Your task to perform on an android device: set default search engine in the chrome app Image 0: 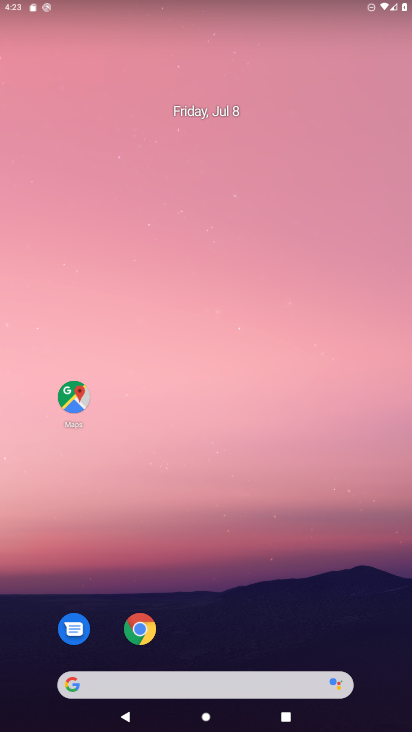
Step 0: click (156, 630)
Your task to perform on an android device: set default search engine in the chrome app Image 1: 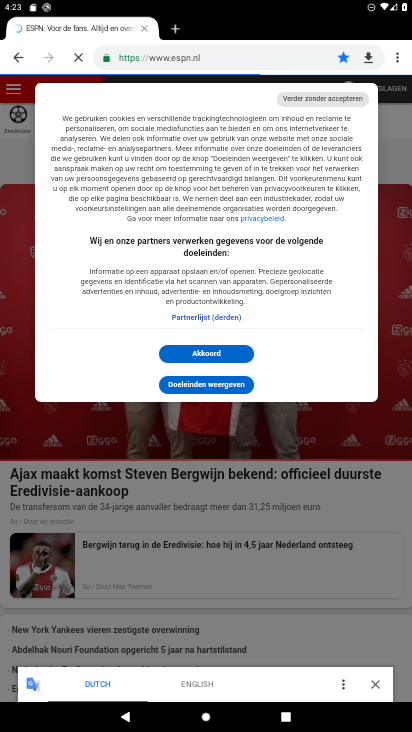
Step 1: click (394, 67)
Your task to perform on an android device: set default search engine in the chrome app Image 2: 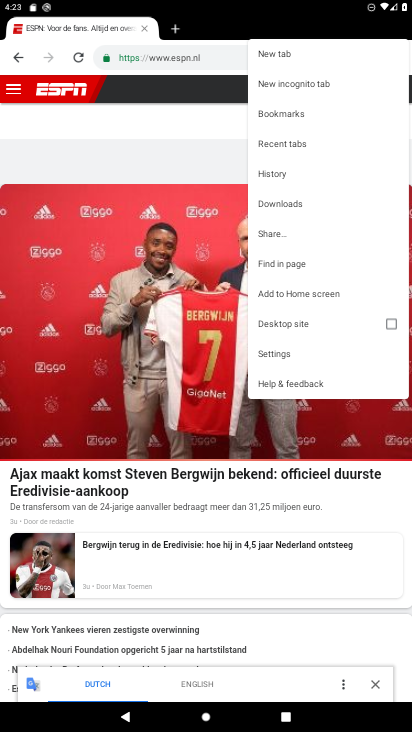
Step 2: click (294, 350)
Your task to perform on an android device: set default search engine in the chrome app Image 3: 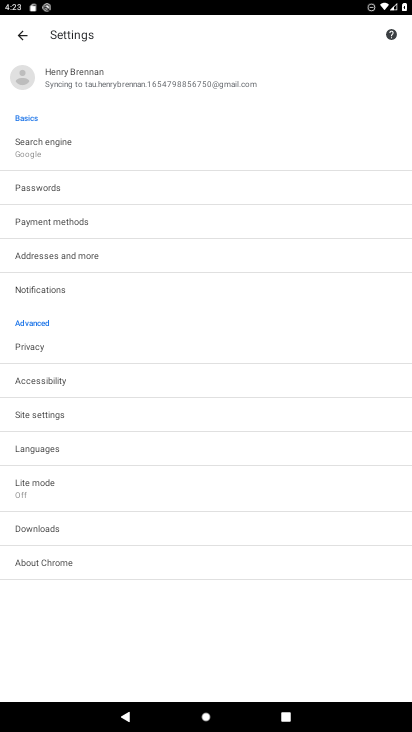
Step 3: click (44, 136)
Your task to perform on an android device: set default search engine in the chrome app Image 4: 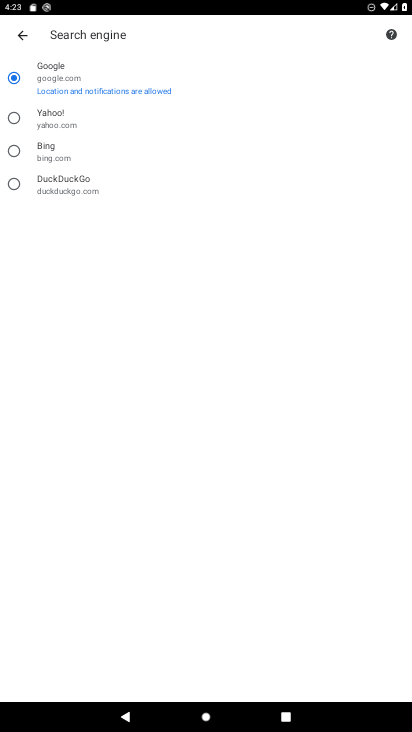
Step 4: click (56, 132)
Your task to perform on an android device: set default search engine in the chrome app Image 5: 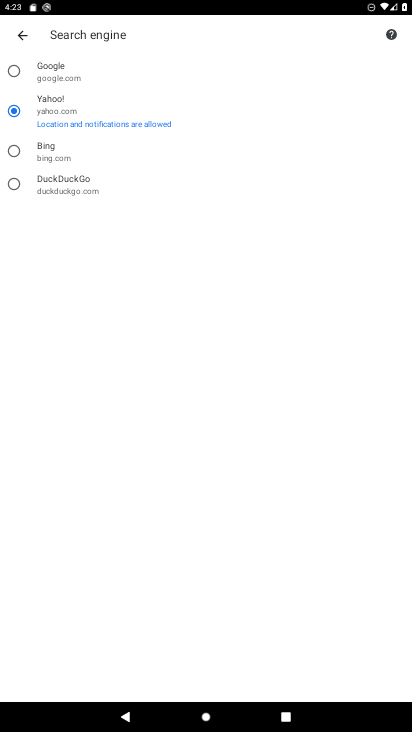
Step 5: task complete